Your task to perform on an android device: Go to wifi settings Image 0: 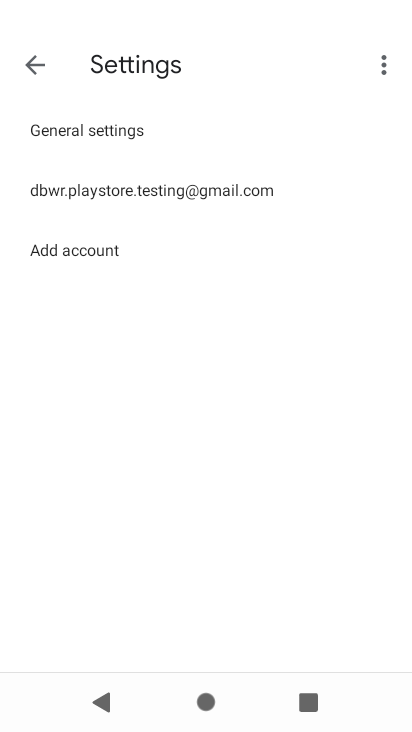
Step 0: press home button
Your task to perform on an android device: Go to wifi settings Image 1: 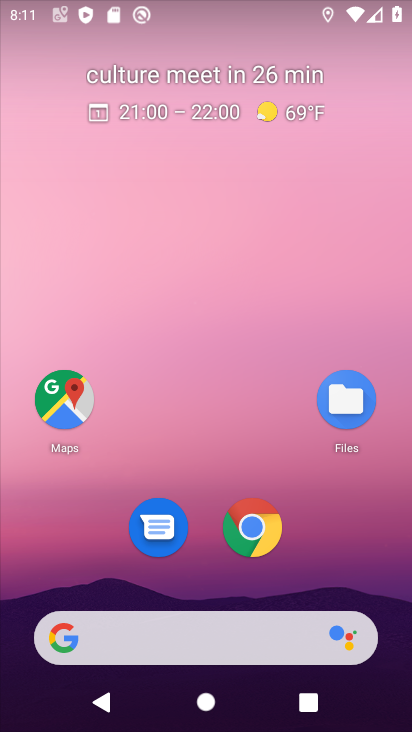
Step 1: drag from (210, 581) to (207, 86)
Your task to perform on an android device: Go to wifi settings Image 2: 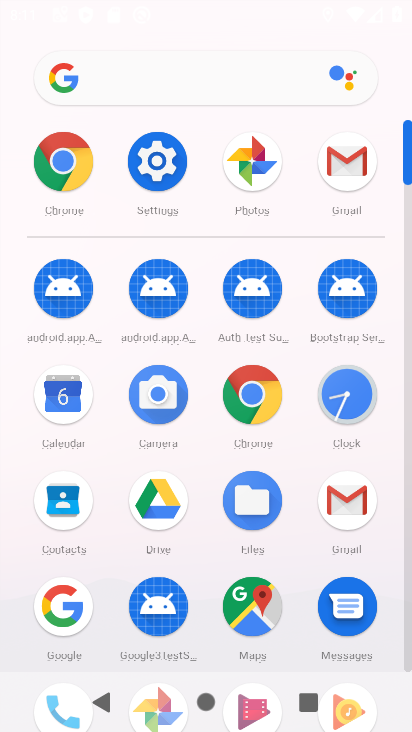
Step 2: click (160, 175)
Your task to perform on an android device: Go to wifi settings Image 3: 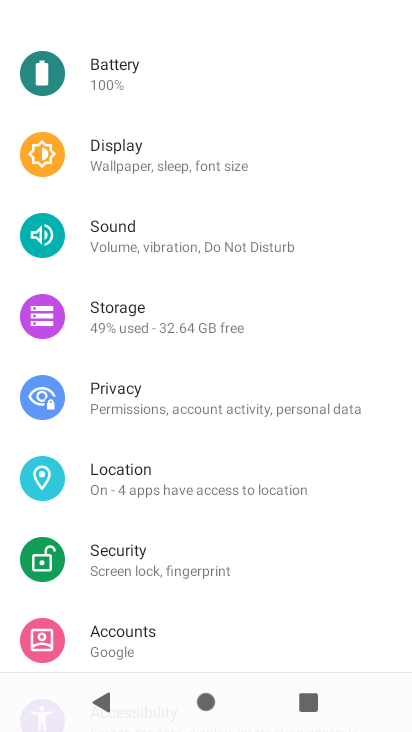
Step 3: drag from (154, 139) to (189, 540)
Your task to perform on an android device: Go to wifi settings Image 4: 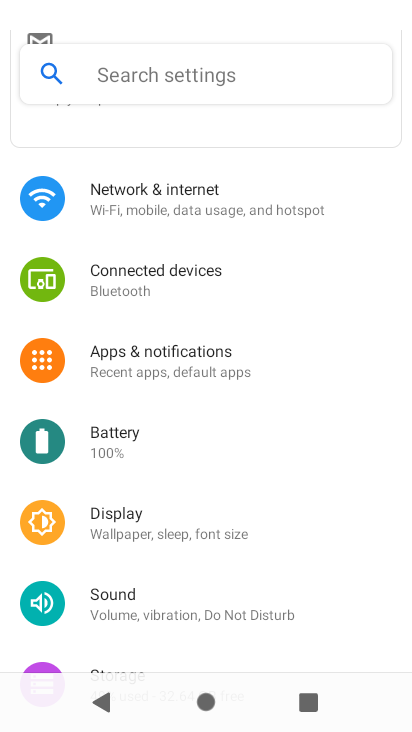
Step 4: click (161, 167)
Your task to perform on an android device: Go to wifi settings Image 5: 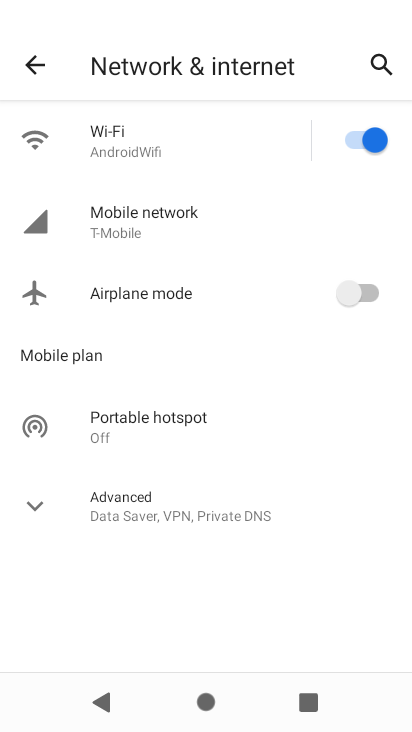
Step 5: click (150, 136)
Your task to perform on an android device: Go to wifi settings Image 6: 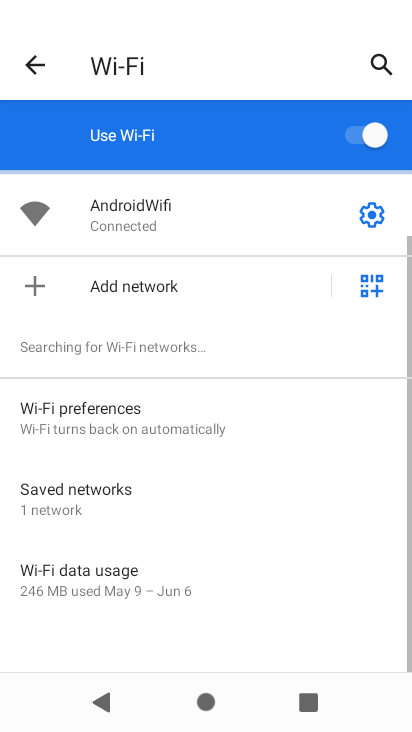
Step 6: click (368, 213)
Your task to perform on an android device: Go to wifi settings Image 7: 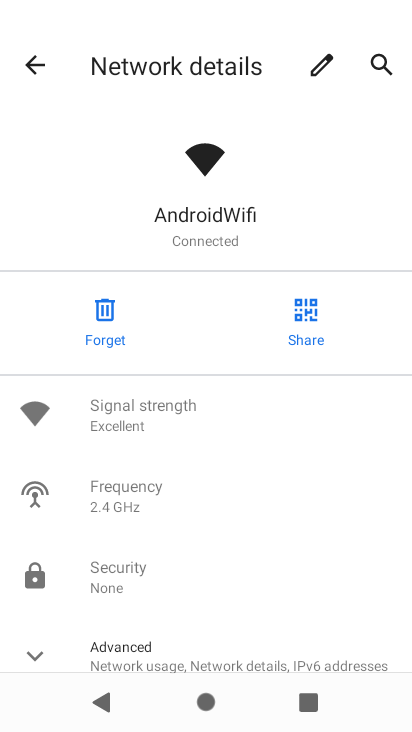
Step 7: task complete